Your task to perform on an android device: manage bookmarks in the chrome app Image 0: 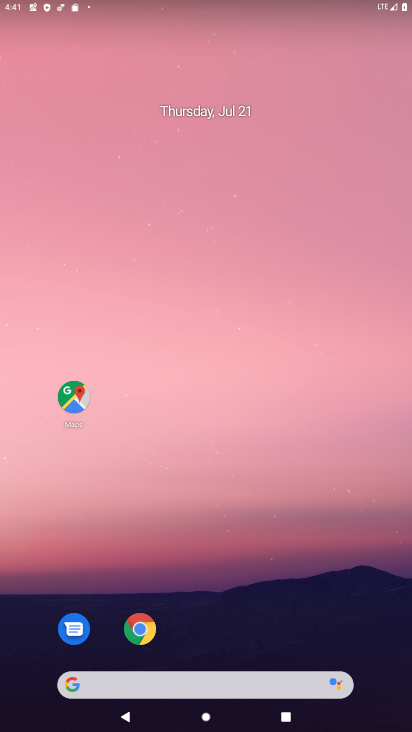
Step 0: click (137, 628)
Your task to perform on an android device: manage bookmarks in the chrome app Image 1: 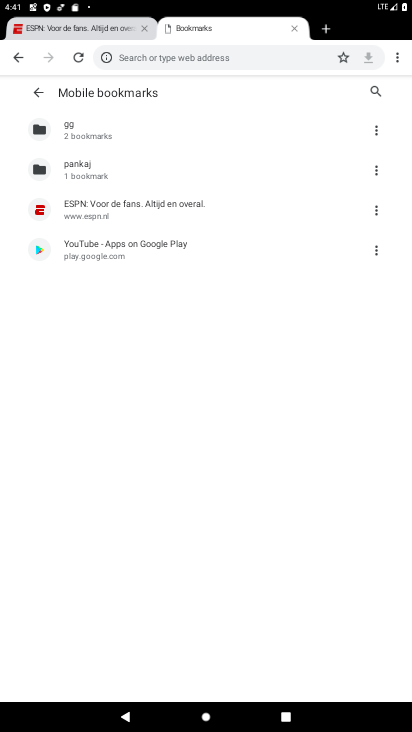
Step 1: click (395, 54)
Your task to perform on an android device: manage bookmarks in the chrome app Image 2: 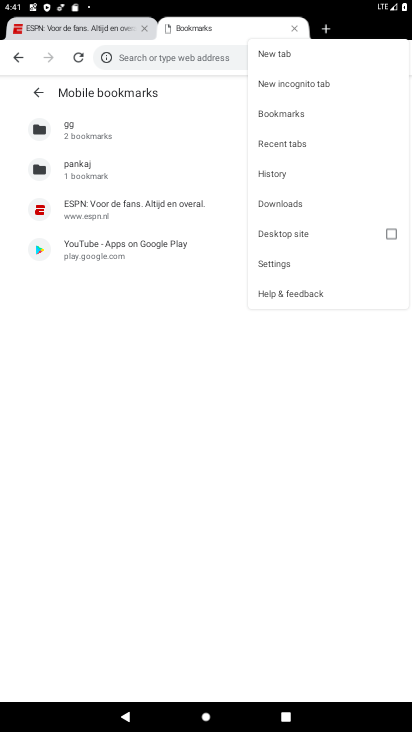
Step 2: click (290, 114)
Your task to perform on an android device: manage bookmarks in the chrome app Image 3: 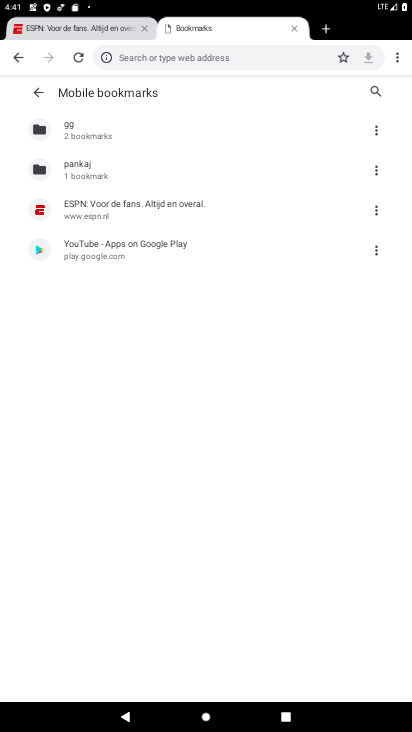
Step 3: task complete